Your task to perform on an android device: turn on location history Image 0: 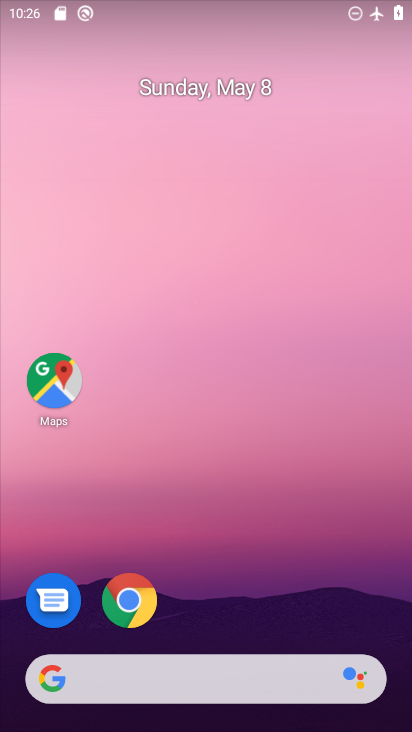
Step 0: drag from (218, 723) to (220, 122)
Your task to perform on an android device: turn on location history Image 1: 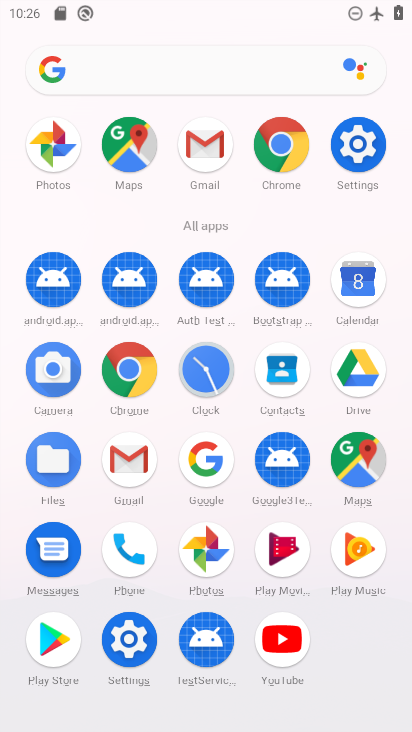
Step 1: click (360, 144)
Your task to perform on an android device: turn on location history Image 2: 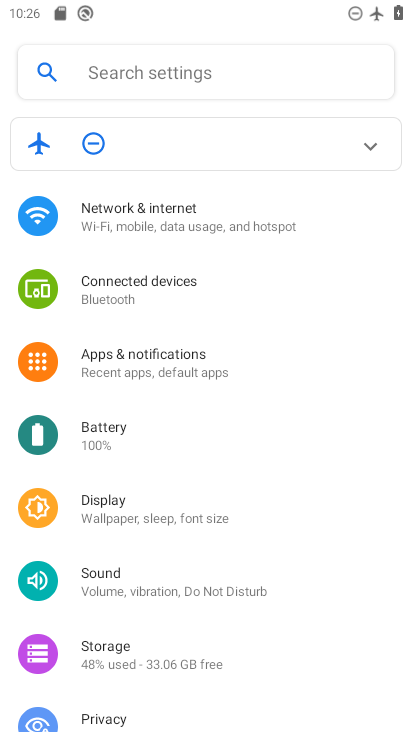
Step 2: drag from (158, 691) to (167, 400)
Your task to perform on an android device: turn on location history Image 3: 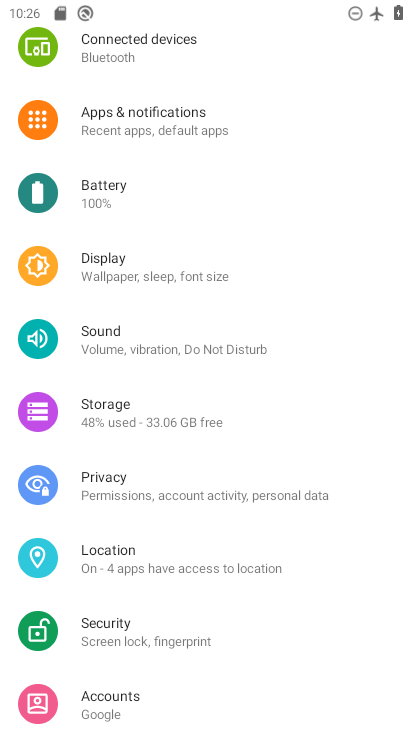
Step 3: click (116, 556)
Your task to perform on an android device: turn on location history Image 4: 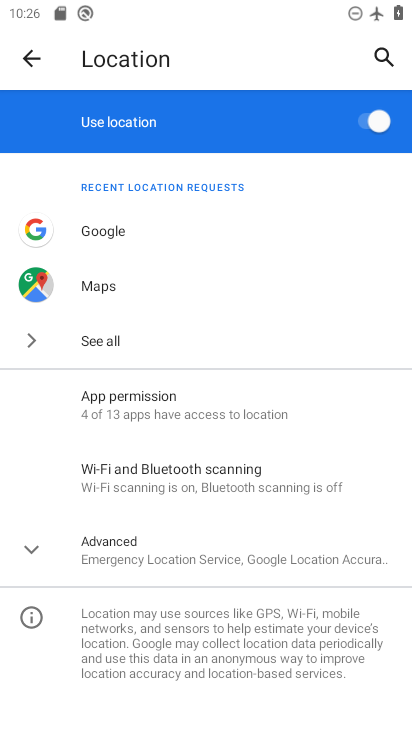
Step 4: click (137, 557)
Your task to perform on an android device: turn on location history Image 5: 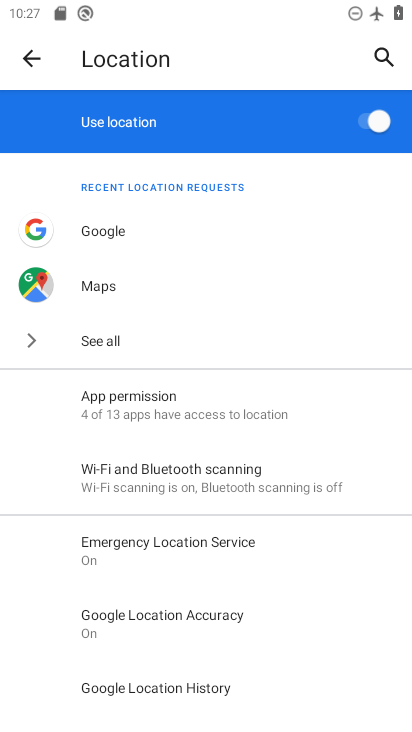
Step 5: click (156, 682)
Your task to perform on an android device: turn on location history Image 6: 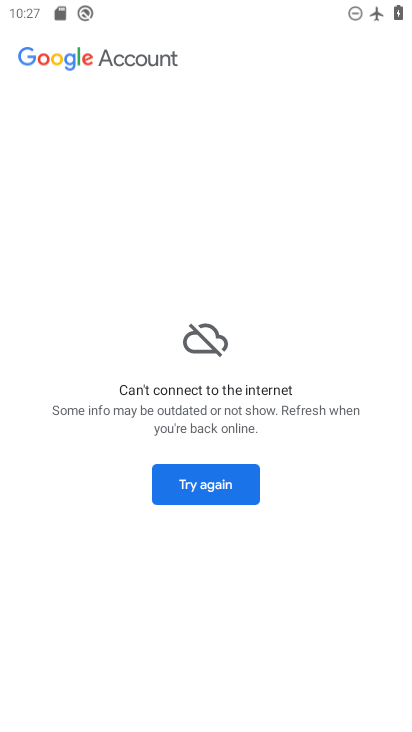
Step 6: task complete